Your task to perform on an android device: Toggle the flashlight Image 0: 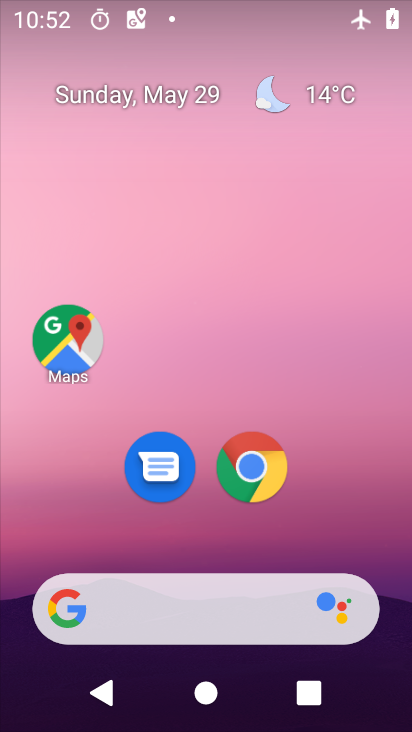
Step 0: drag from (193, 550) to (191, 197)
Your task to perform on an android device: Toggle the flashlight Image 1: 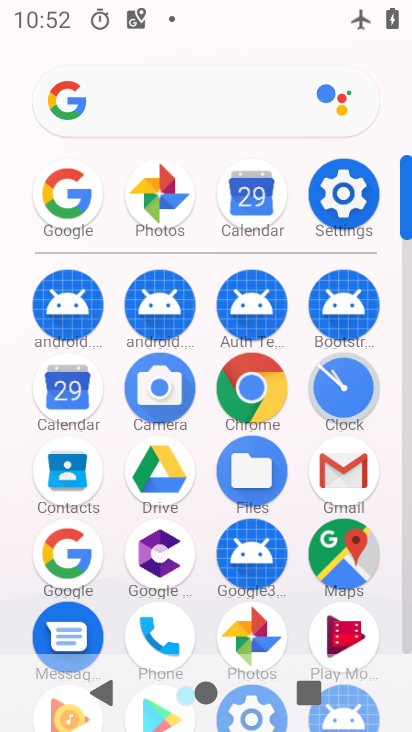
Step 1: click (347, 207)
Your task to perform on an android device: Toggle the flashlight Image 2: 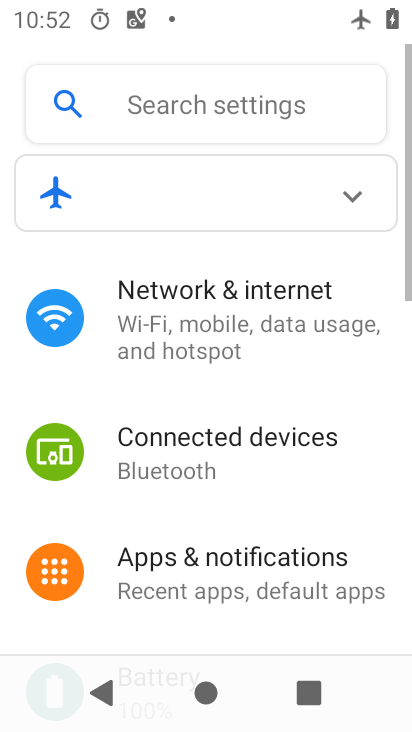
Step 2: task complete